Your task to perform on an android device: toggle translation in the chrome app Image 0: 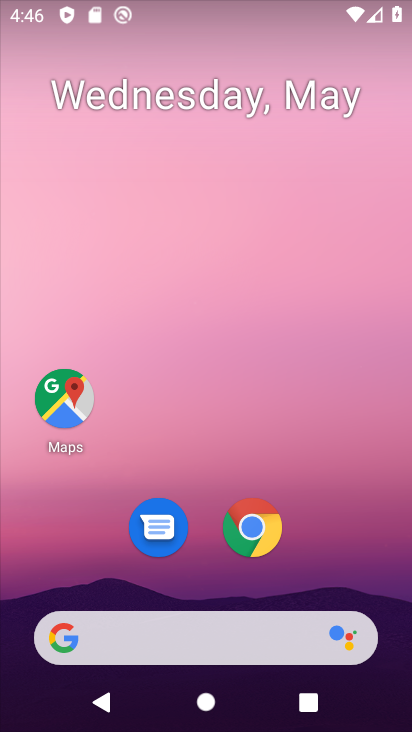
Step 0: drag from (195, 589) to (151, 36)
Your task to perform on an android device: toggle translation in the chrome app Image 1: 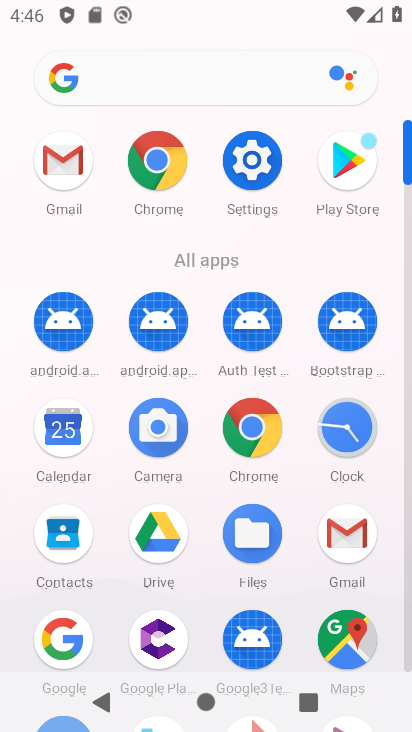
Step 1: click (162, 172)
Your task to perform on an android device: toggle translation in the chrome app Image 2: 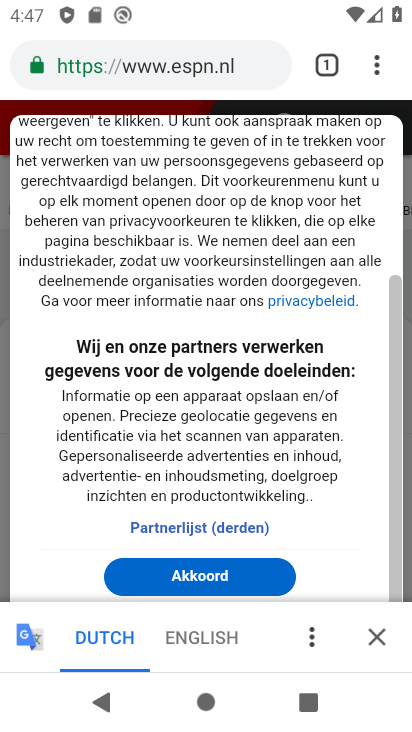
Step 2: click (379, 76)
Your task to perform on an android device: toggle translation in the chrome app Image 3: 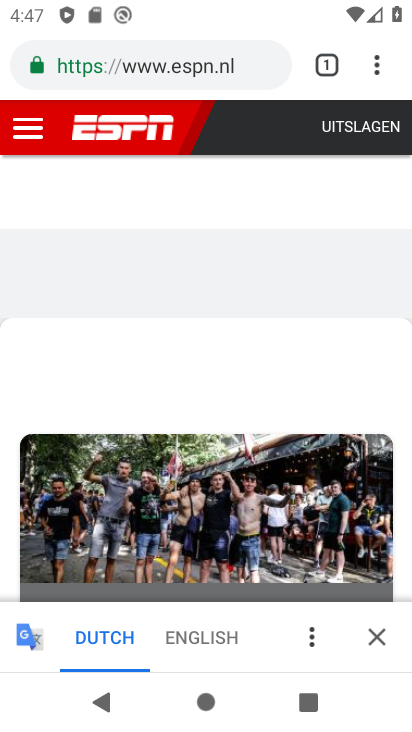
Step 3: click (379, 64)
Your task to perform on an android device: toggle translation in the chrome app Image 4: 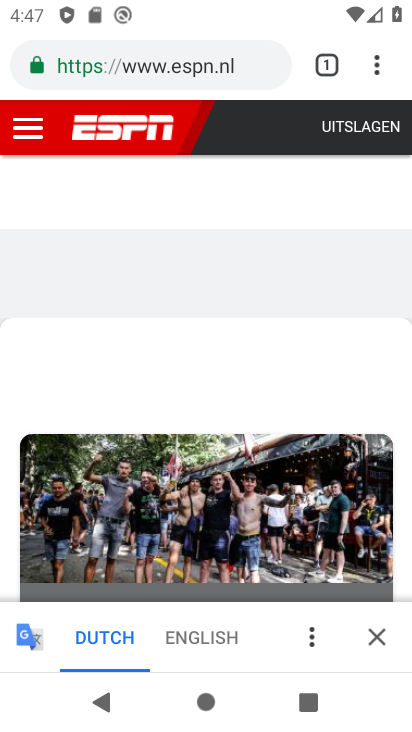
Step 4: click (375, 60)
Your task to perform on an android device: toggle translation in the chrome app Image 5: 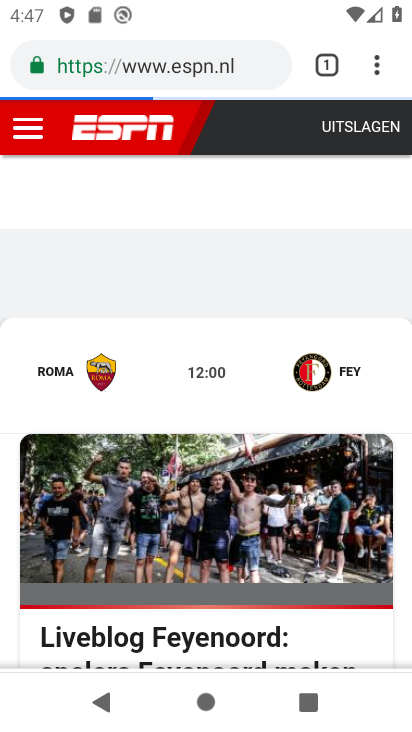
Step 5: click (378, 74)
Your task to perform on an android device: toggle translation in the chrome app Image 6: 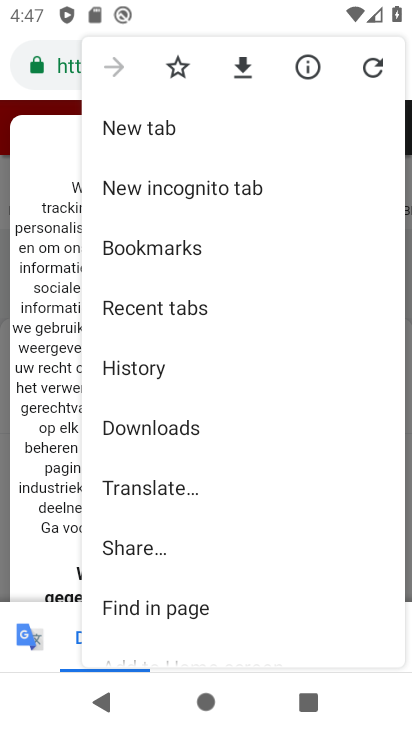
Step 6: drag from (180, 568) to (210, 387)
Your task to perform on an android device: toggle translation in the chrome app Image 7: 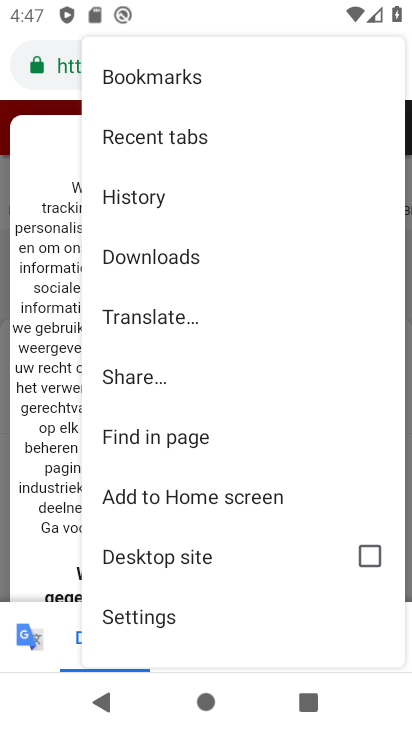
Step 7: click (158, 618)
Your task to perform on an android device: toggle translation in the chrome app Image 8: 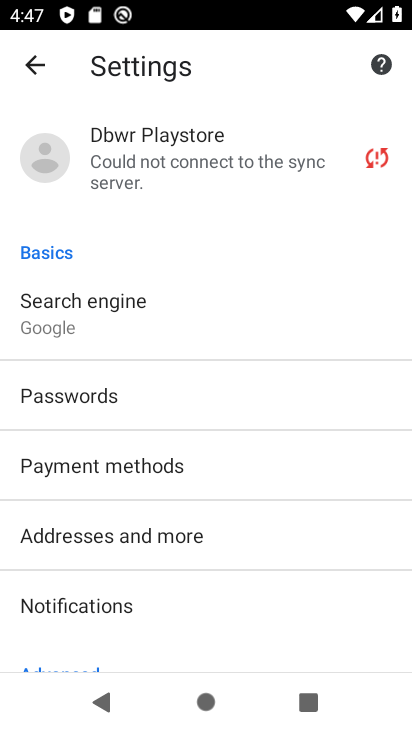
Step 8: drag from (109, 634) to (168, 428)
Your task to perform on an android device: toggle translation in the chrome app Image 9: 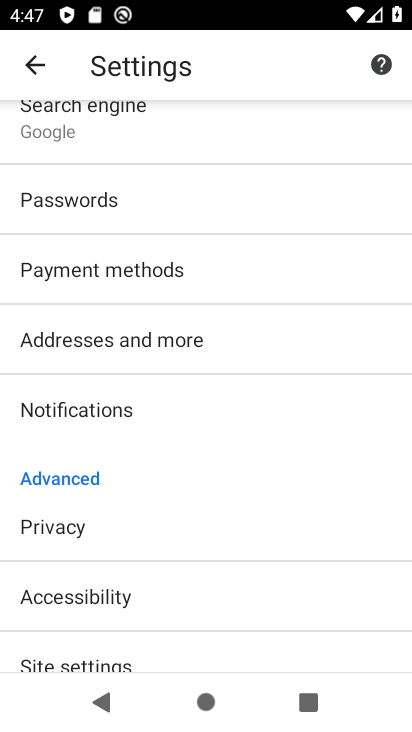
Step 9: drag from (120, 612) to (153, 396)
Your task to perform on an android device: toggle translation in the chrome app Image 10: 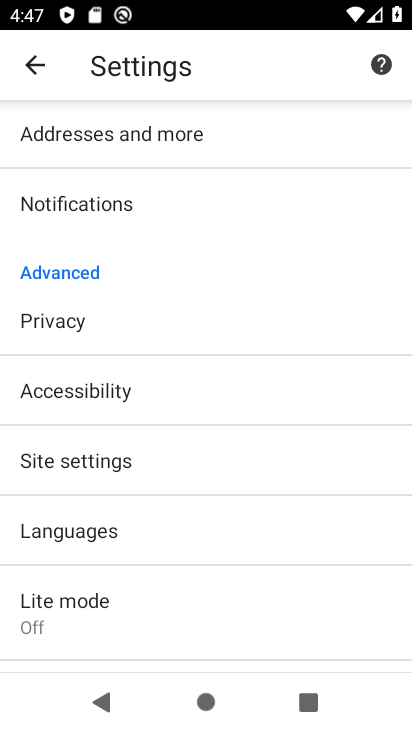
Step 10: click (79, 539)
Your task to perform on an android device: toggle translation in the chrome app Image 11: 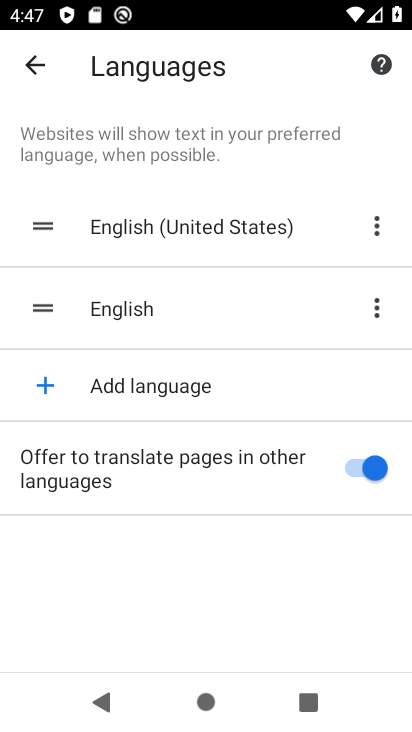
Step 11: click (344, 474)
Your task to perform on an android device: toggle translation in the chrome app Image 12: 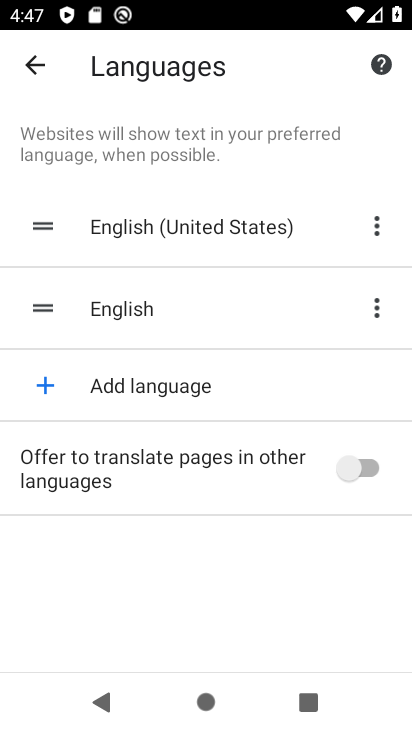
Step 12: task complete